Your task to perform on an android device: Search for nike dri-fit shirts on Nike Image 0: 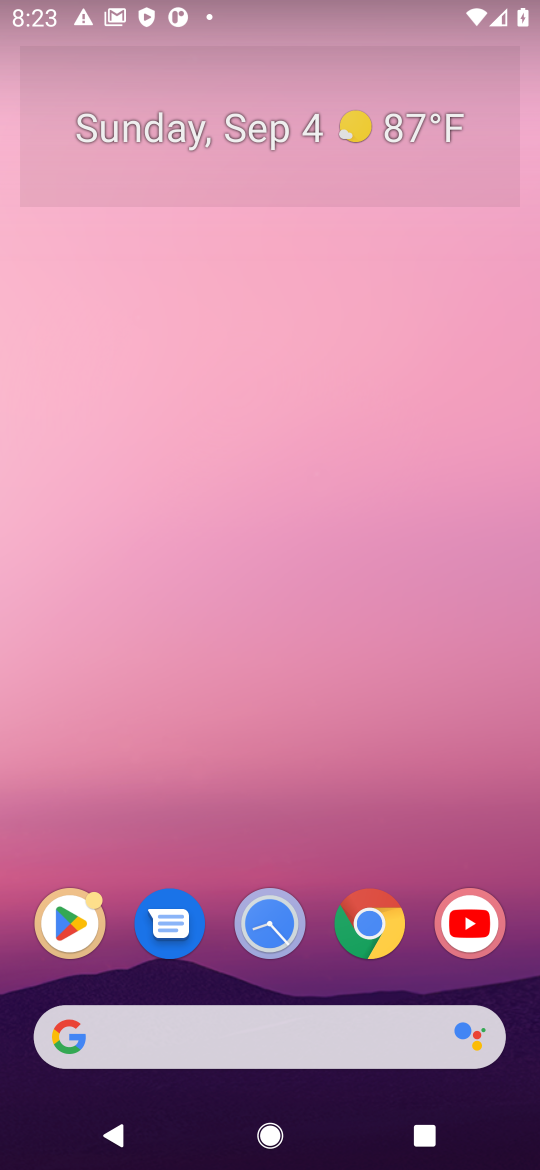
Step 0: press home button
Your task to perform on an android device: Search for nike dri-fit shirts on Nike Image 1: 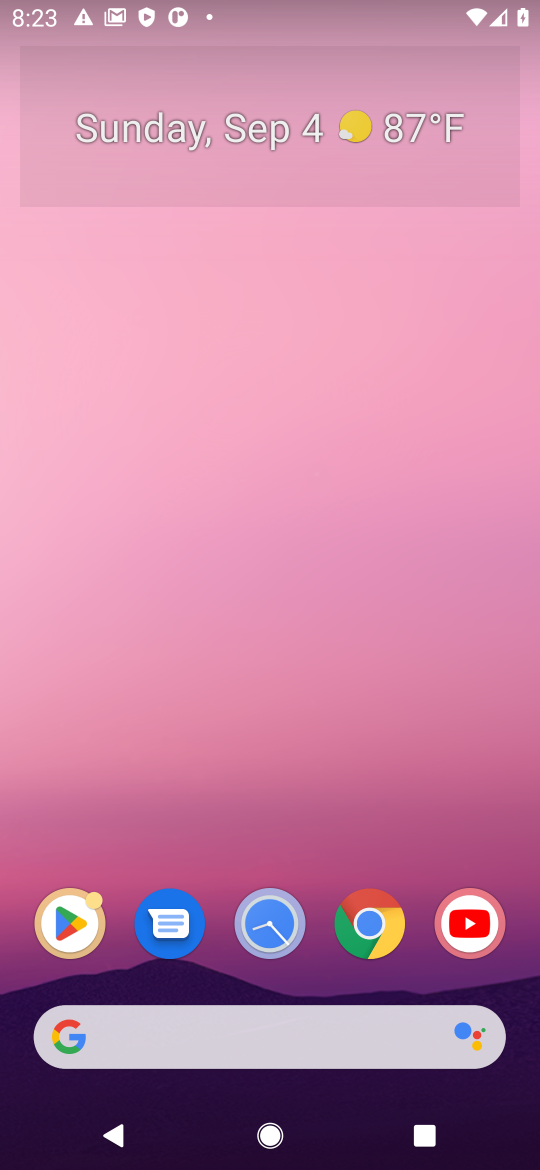
Step 1: click (398, 1043)
Your task to perform on an android device: Search for nike dri-fit shirts on Nike Image 2: 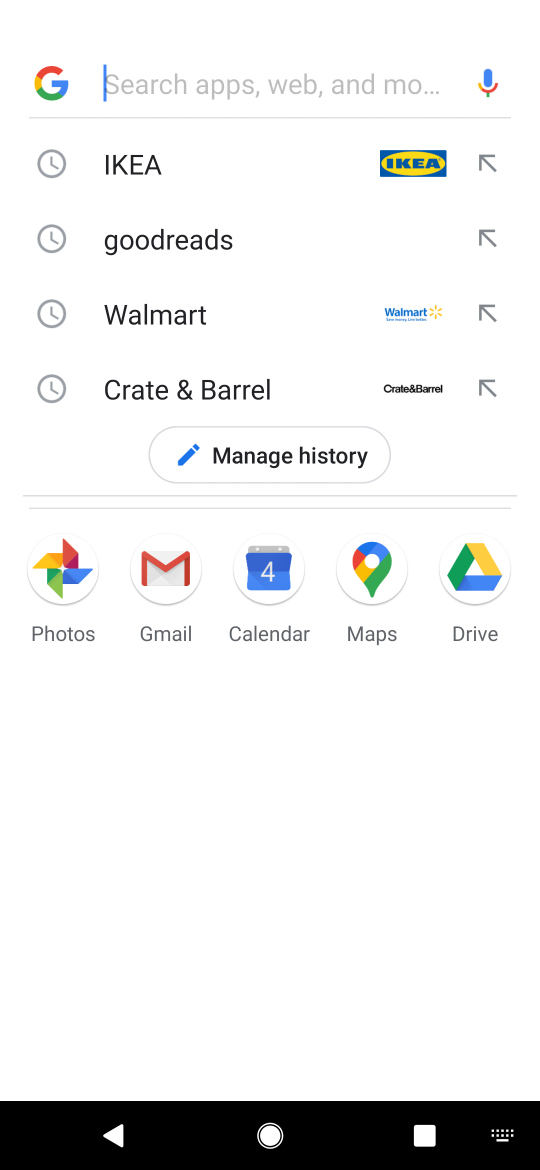
Step 2: press enter
Your task to perform on an android device: Search for nike dri-fit shirts on Nike Image 3: 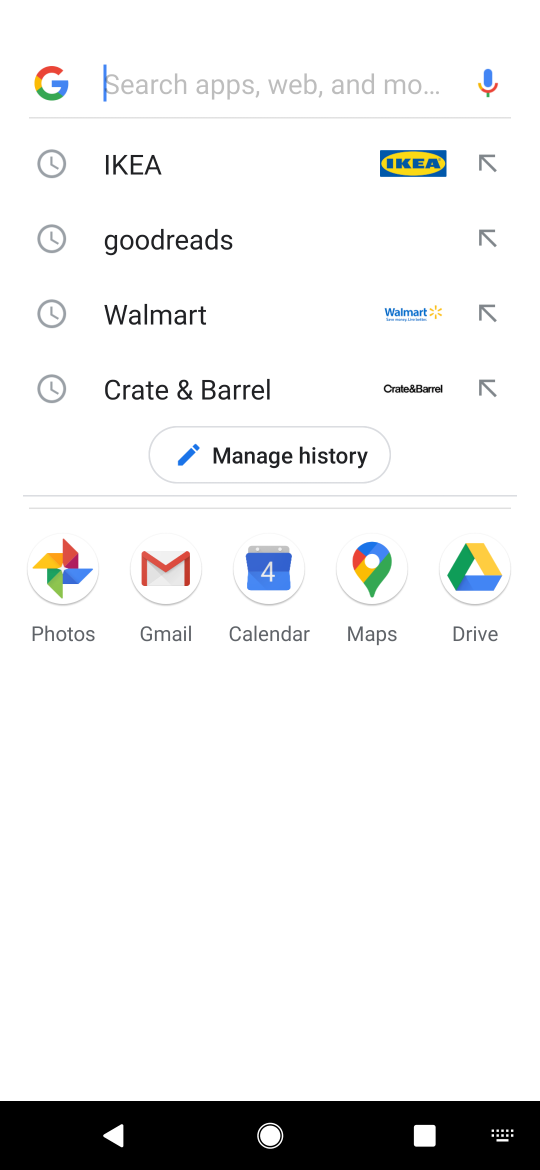
Step 3: type "nike"
Your task to perform on an android device: Search for nike dri-fit shirts on Nike Image 4: 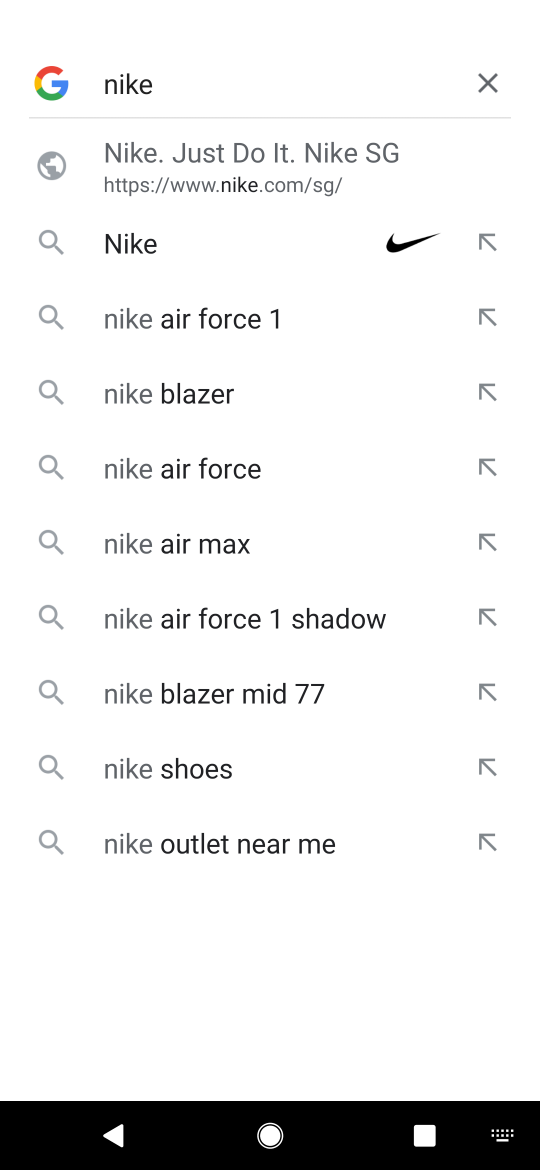
Step 4: click (293, 164)
Your task to perform on an android device: Search for nike dri-fit shirts on Nike Image 5: 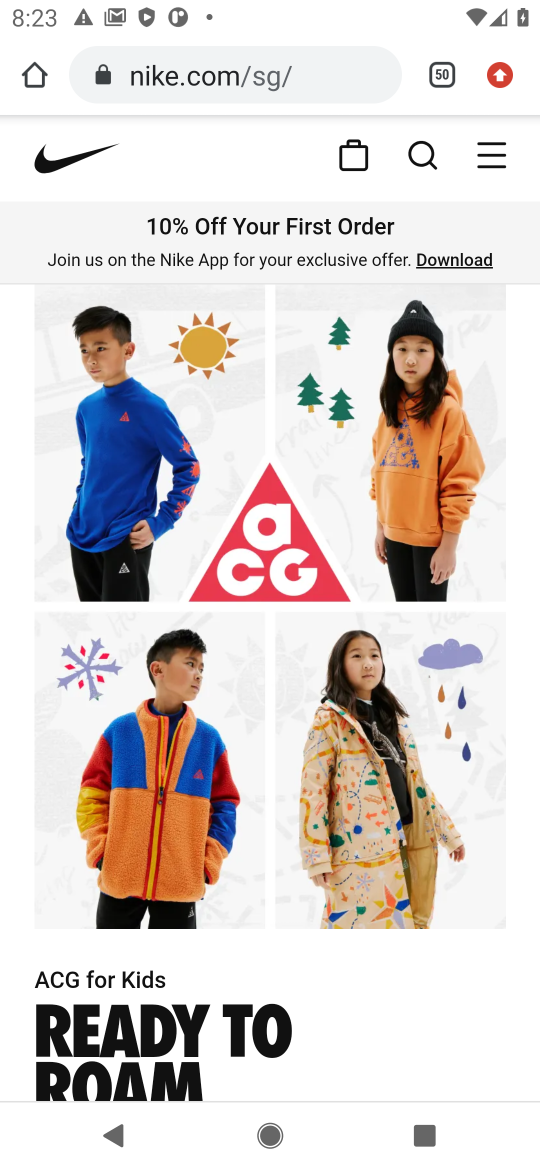
Step 5: click (425, 150)
Your task to perform on an android device: Search for nike dri-fit shirts on Nike Image 6: 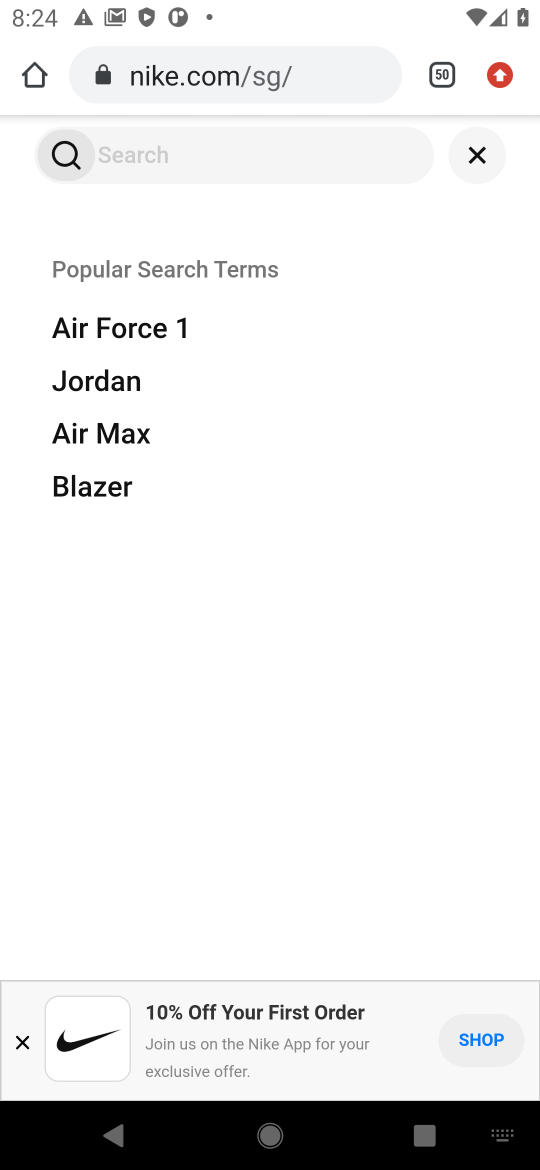
Step 6: press enter
Your task to perform on an android device: Search for nike dri-fit shirts on Nike Image 7: 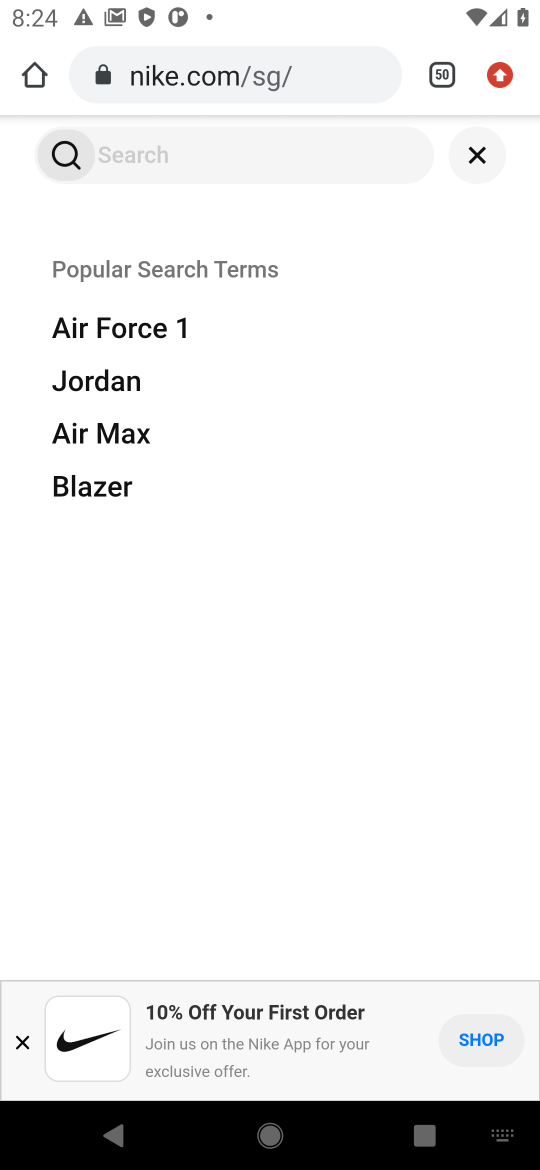
Step 7: type "nike dri fit shirts"
Your task to perform on an android device: Search for nike dri-fit shirts on Nike Image 8: 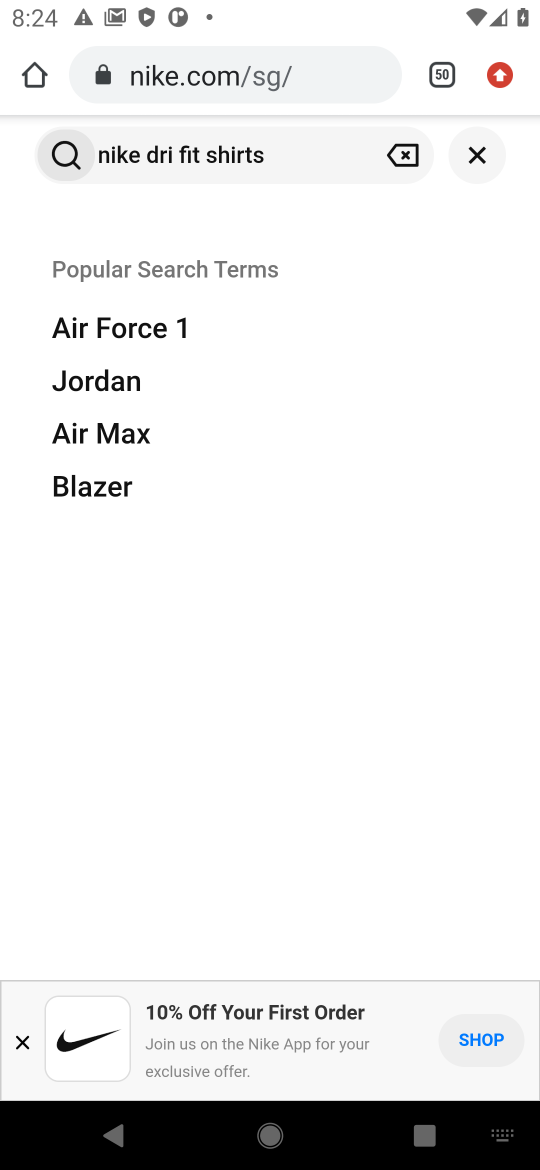
Step 8: click (68, 152)
Your task to perform on an android device: Search for nike dri-fit shirts on Nike Image 9: 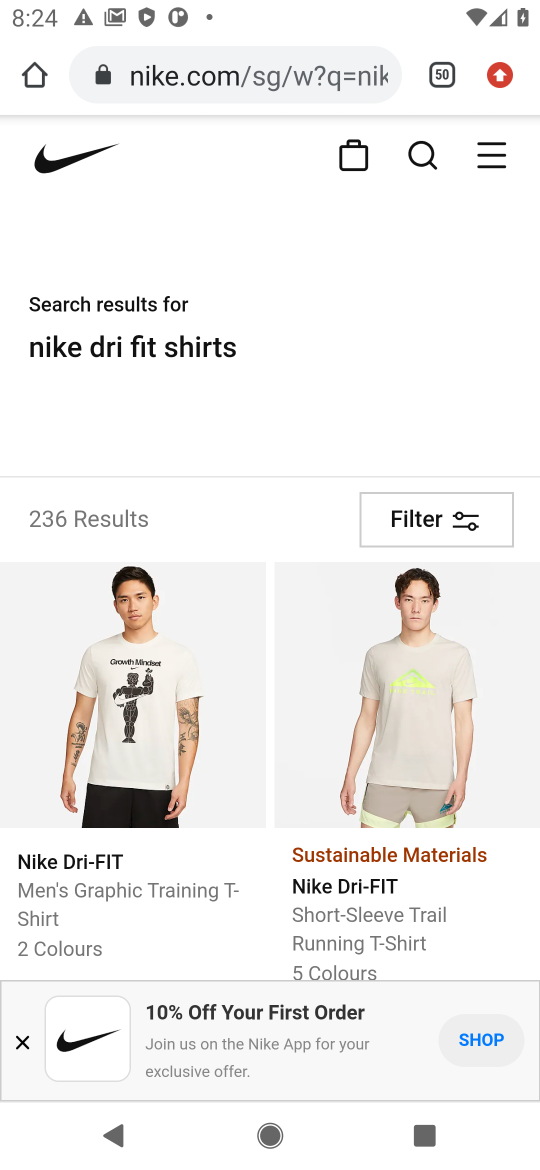
Step 9: task complete